Your task to perform on an android device: Go to CNN.com Image 0: 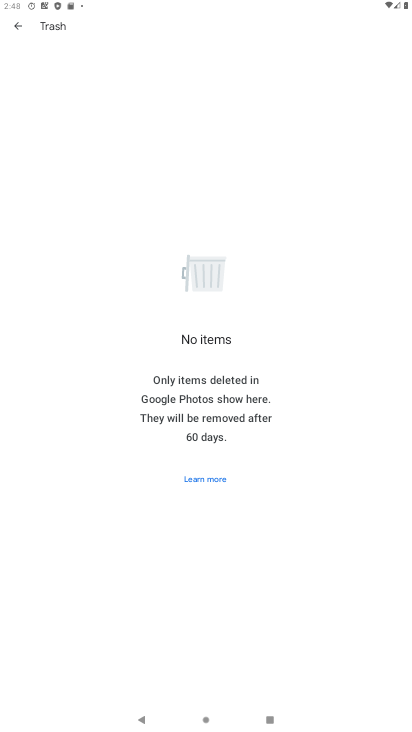
Step 0: press home button
Your task to perform on an android device: Go to CNN.com Image 1: 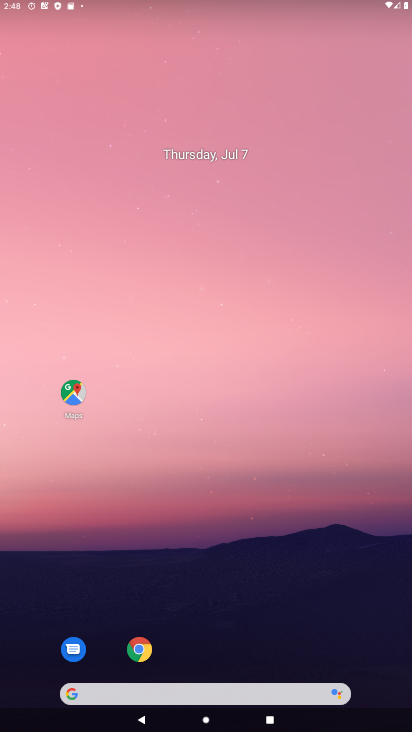
Step 1: drag from (280, 674) to (261, 2)
Your task to perform on an android device: Go to CNN.com Image 2: 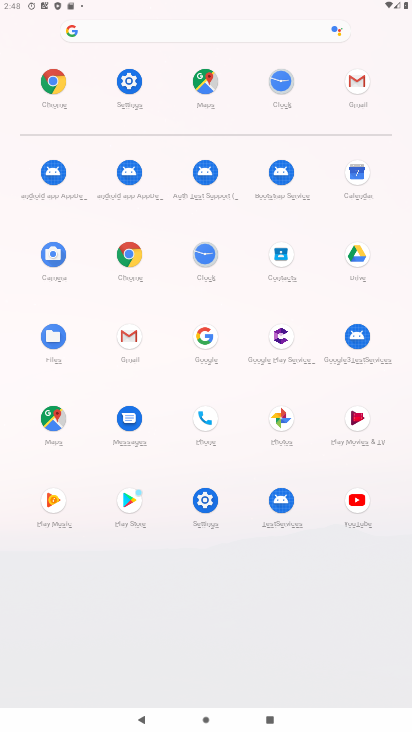
Step 2: click (133, 251)
Your task to perform on an android device: Go to CNN.com Image 3: 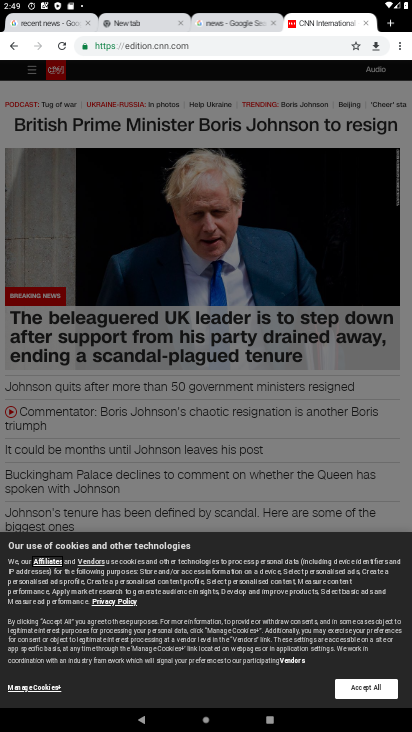
Step 3: task complete